Your task to perform on an android device: Go to Android settings Image 0: 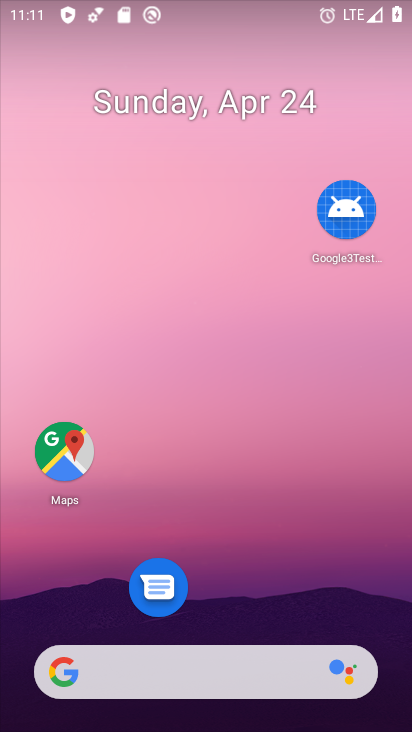
Step 0: drag from (312, 534) to (301, 201)
Your task to perform on an android device: Go to Android settings Image 1: 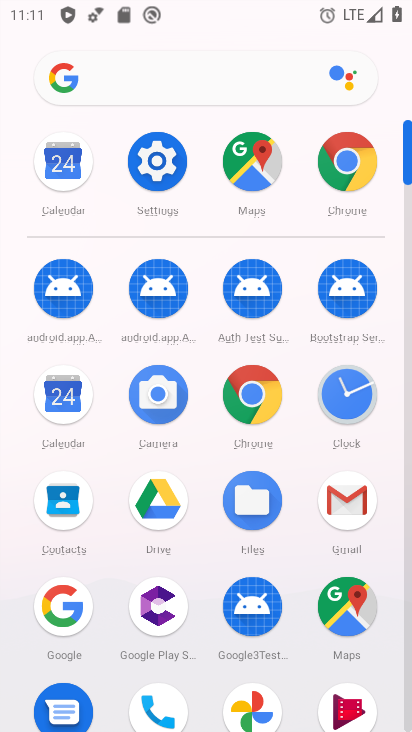
Step 1: click (171, 167)
Your task to perform on an android device: Go to Android settings Image 2: 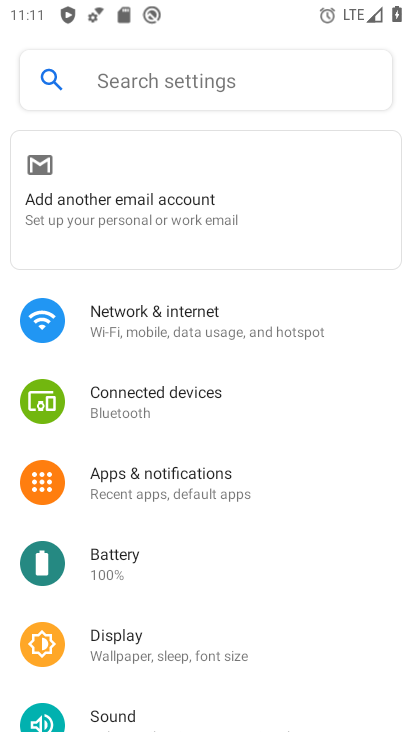
Step 2: drag from (278, 596) to (313, 313)
Your task to perform on an android device: Go to Android settings Image 3: 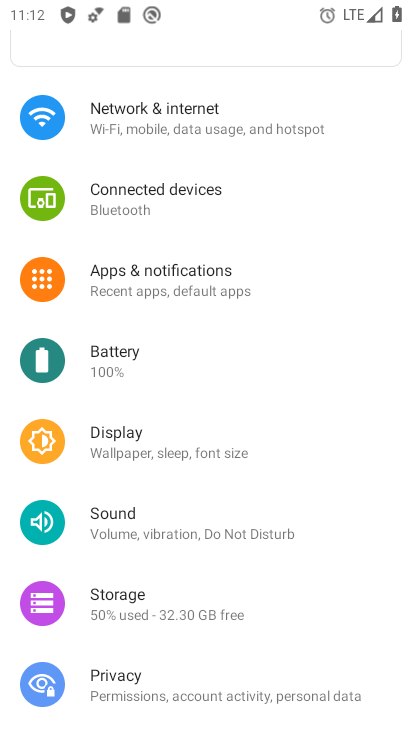
Step 3: drag from (265, 644) to (297, 386)
Your task to perform on an android device: Go to Android settings Image 4: 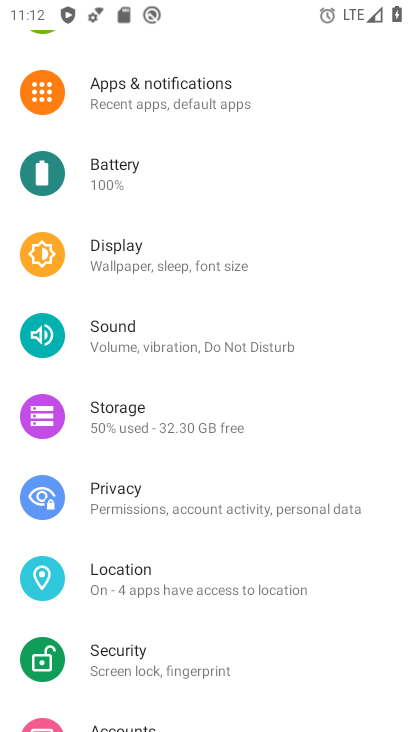
Step 4: drag from (270, 612) to (270, 366)
Your task to perform on an android device: Go to Android settings Image 5: 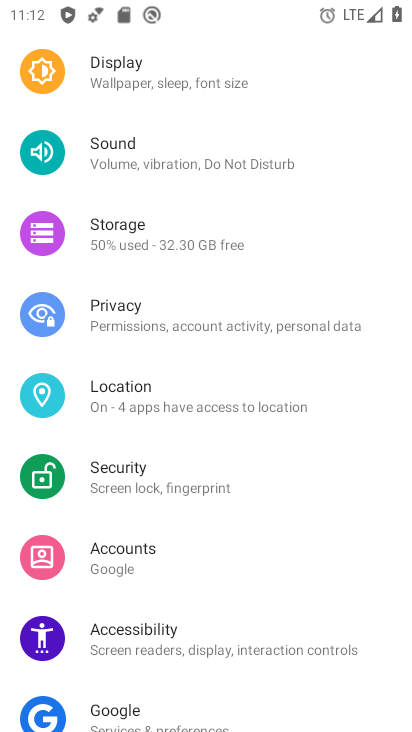
Step 5: drag from (273, 591) to (275, 236)
Your task to perform on an android device: Go to Android settings Image 6: 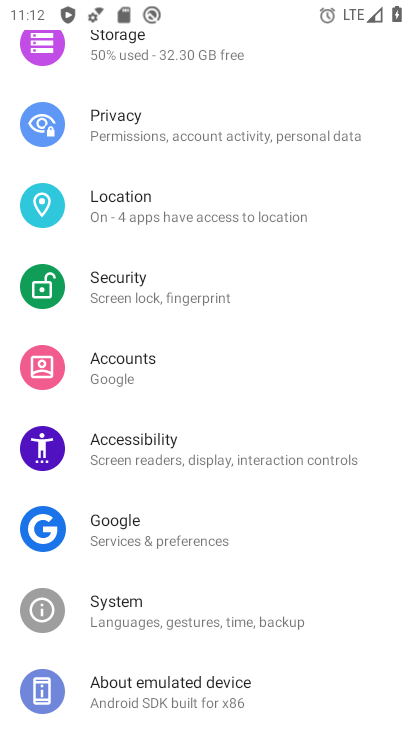
Step 6: click (184, 696)
Your task to perform on an android device: Go to Android settings Image 7: 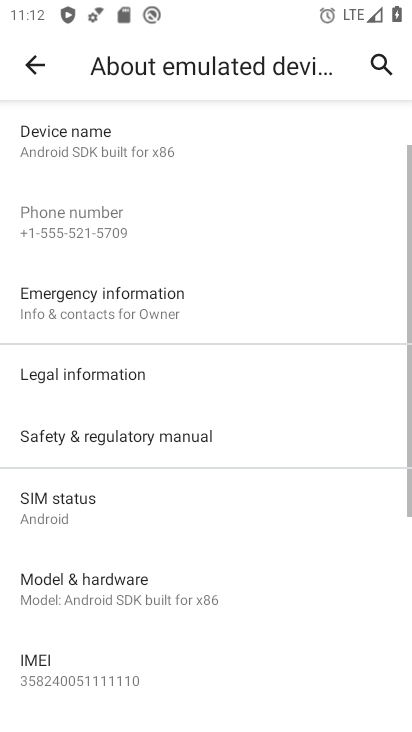
Step 7: task complete